Your task to perform on an android device: Open calendar and show me the fourth week of next month Image 0: 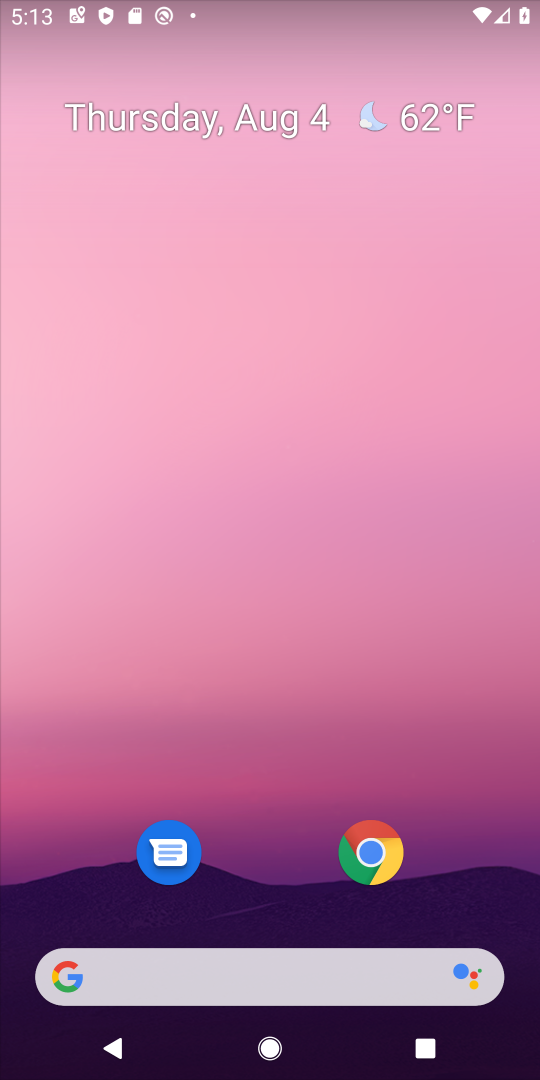
Step 0: drag from (264, 932) to (335, 147)
Your task to perform on an android device: Open calendar and show me the fourth week of next month Image 1: 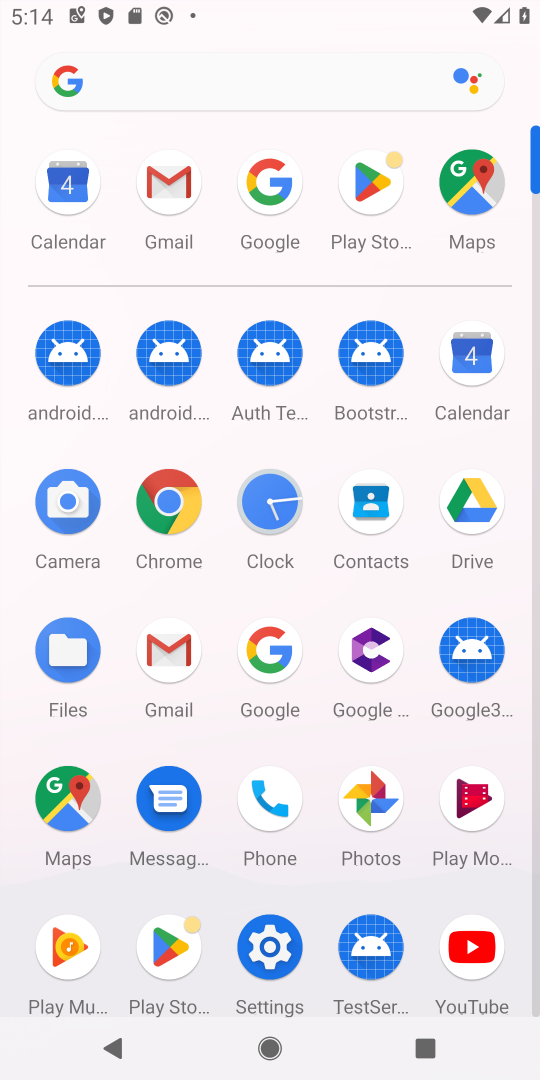
Step 1: click (469, 361)
Your task to perform on an android device: Open calendar and show me the fourth week of next month Image 2: 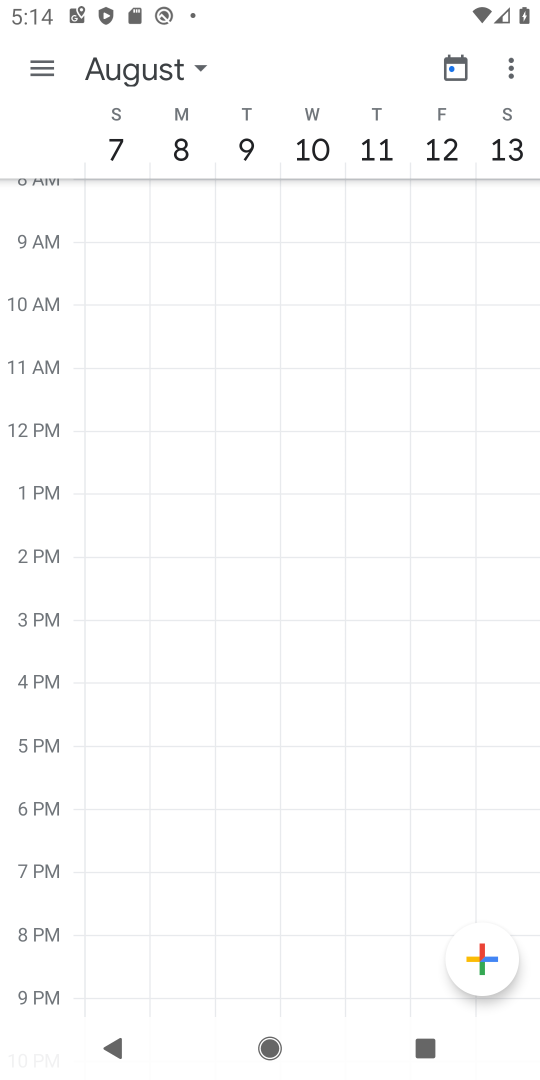
Step 2: click (203, 67)
Your task to perform on an android device: Open calendar and show me the fourth week of next month Image 3: 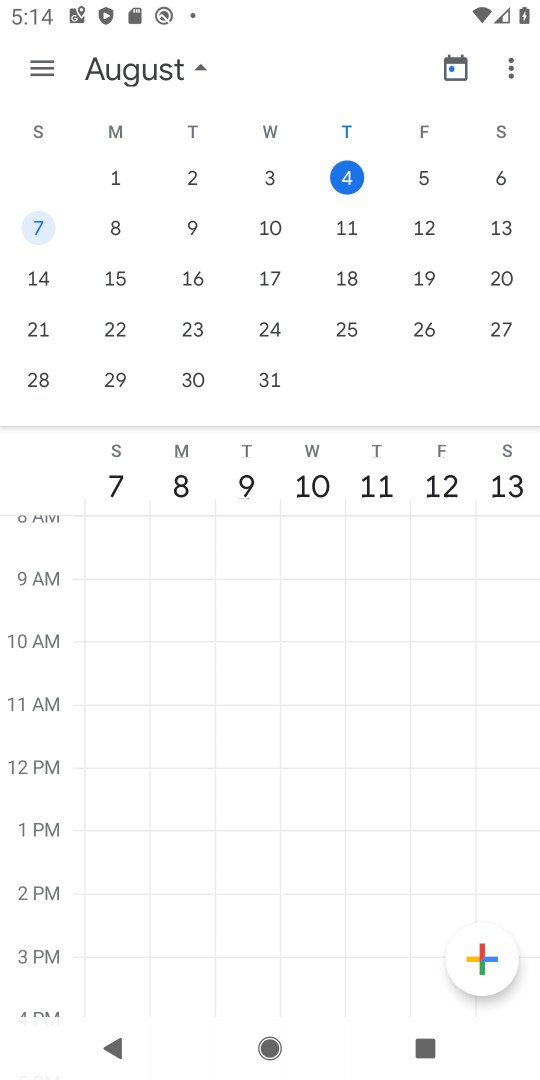
Step 3: drag from (463, 288) to (205, 266)
Your task to perform on an android device: Open calendar and show me the fourth week of next month Image 4: 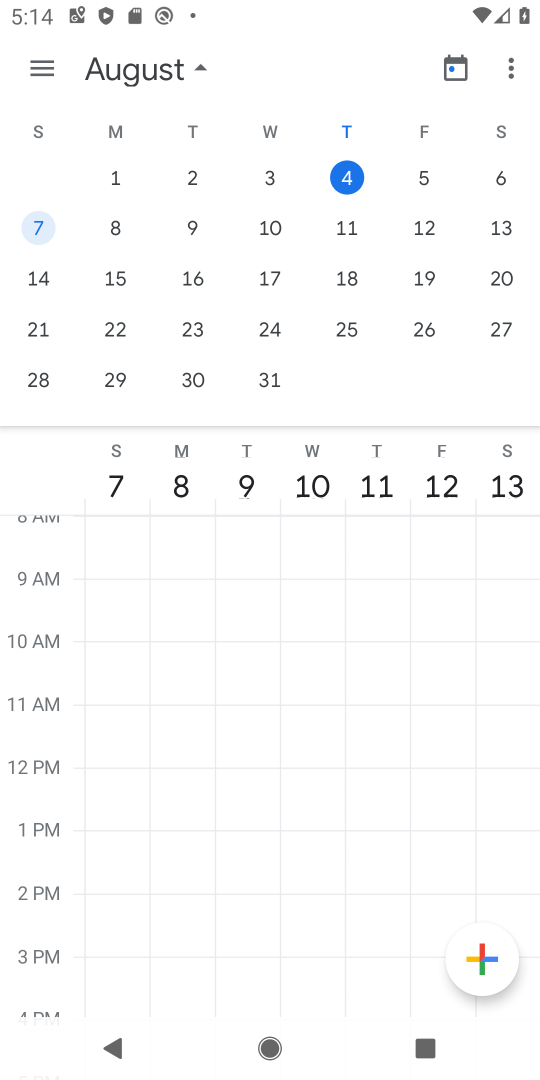
Step 4: drag from (414, 296) to (118, 300)
Your task to perform on an android device: Open calendar and show me the fourth week of next month Image 5: 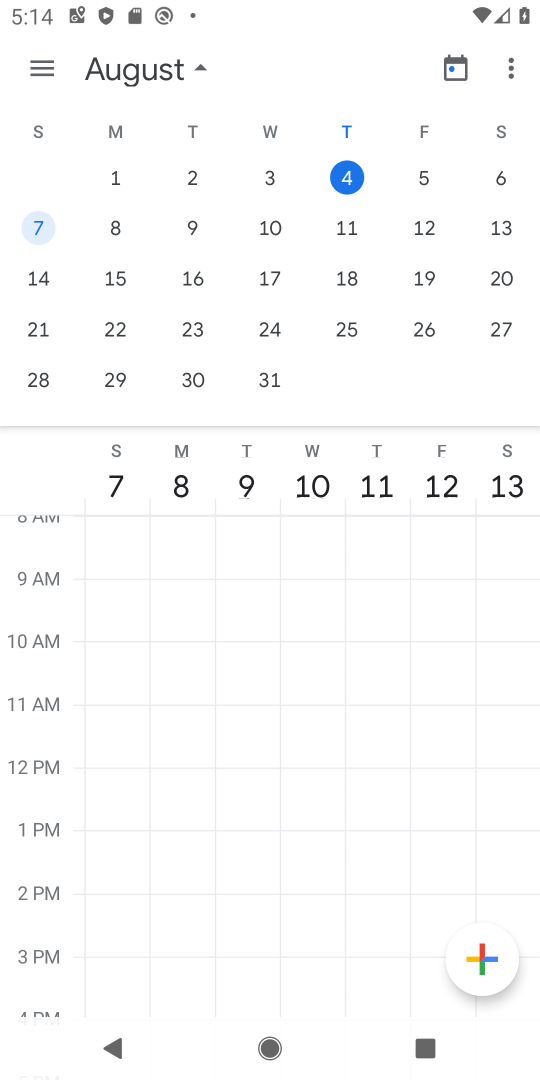
Step 5: drag from (493, 284) to (152, 280)
Your task to perform on an android device: Open calendar and show me the fourth week of next month Image 6: 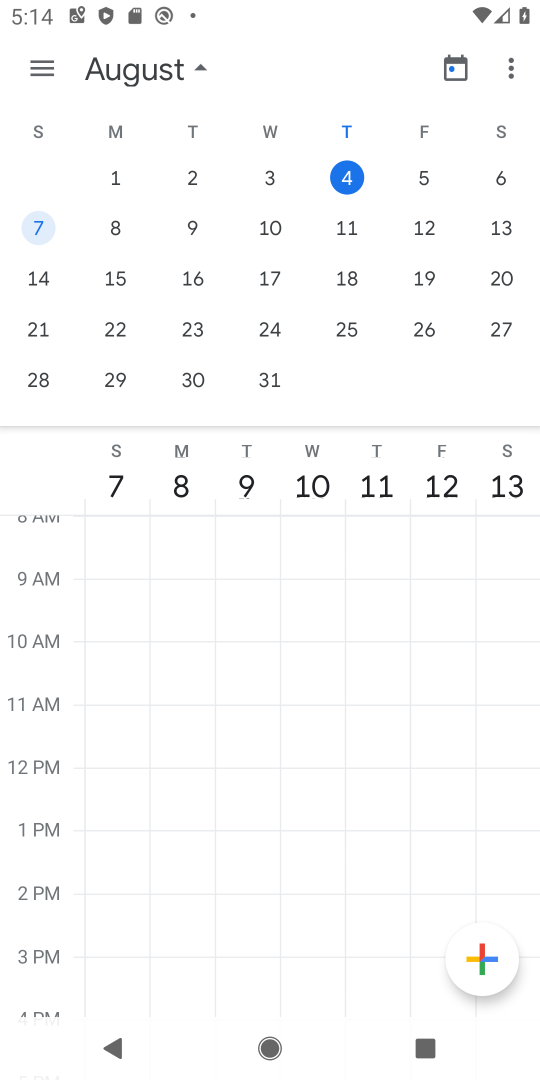
Step 6: drag from (435, 234) to (105, 231)
Your task to perform on an android device: Open calendar and show me the fourth week of next month Image 7: 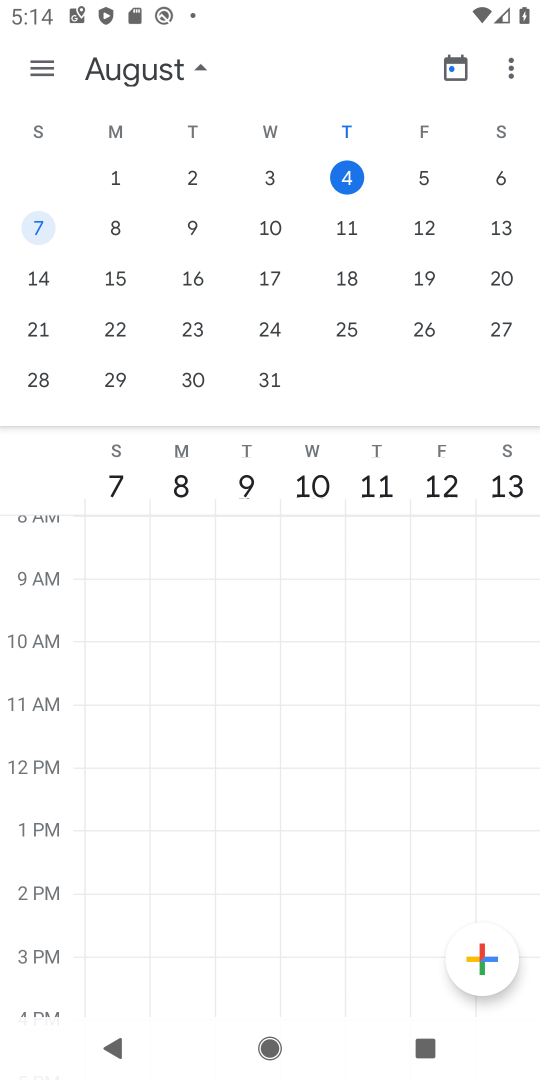
Step 7: drag from (505, 230) to (2, 228)
Your task to perform on an android device: Open calendar and show me the fourth week of next month Image 8: 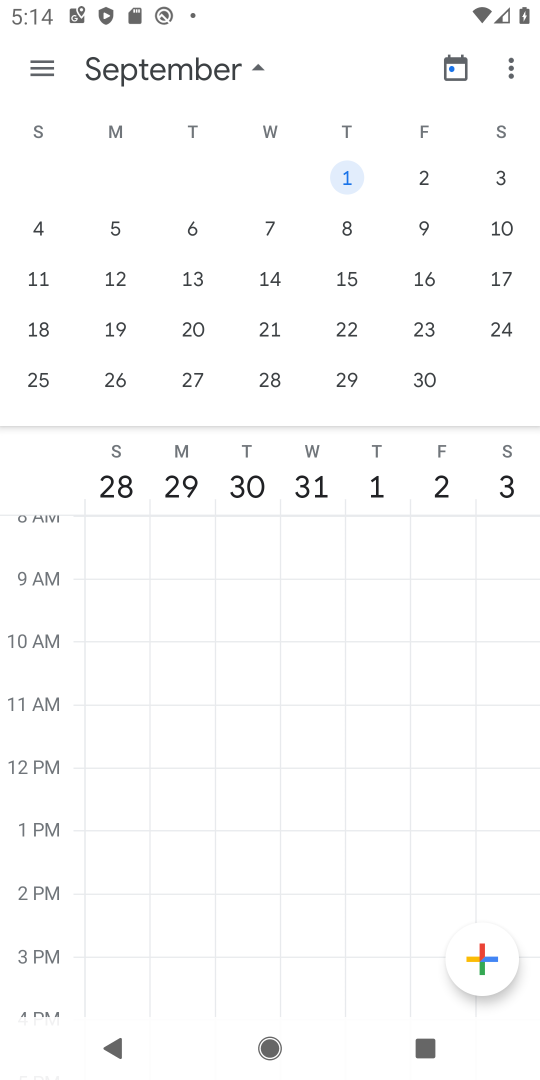
Step 8: click (112, 369)
Your task to perform on an android device: Open calendar and show me the fourth week of next month Image 9: 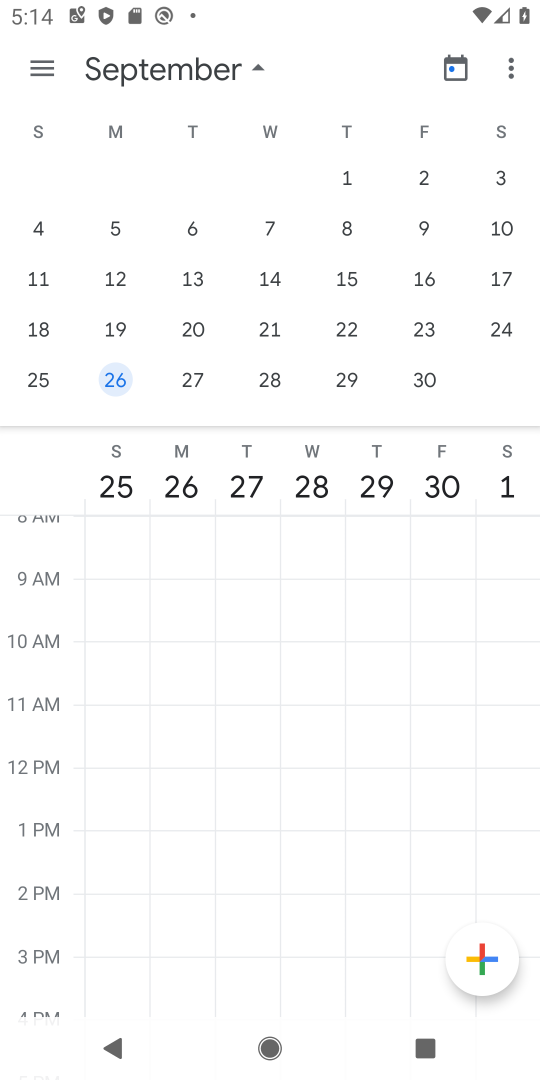
Step 9: click (50, 70)
Your task to perform on an android device: Open calendar and show me the fourth week of next month Image 10: 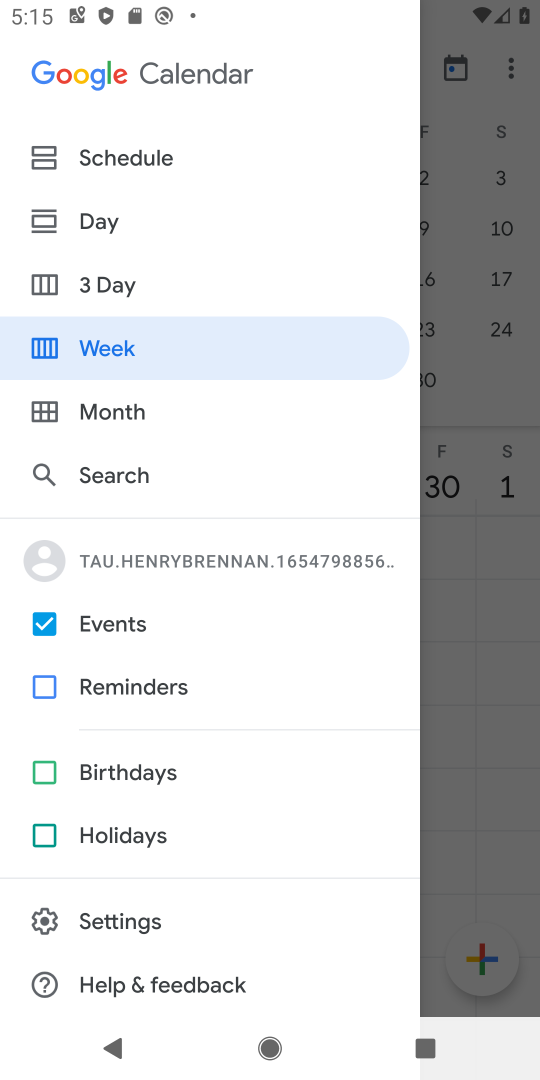
Step 10: click (116, 339)
Your task to perform on an android device: Open calendar and show me the fourth week of next month Image 11: 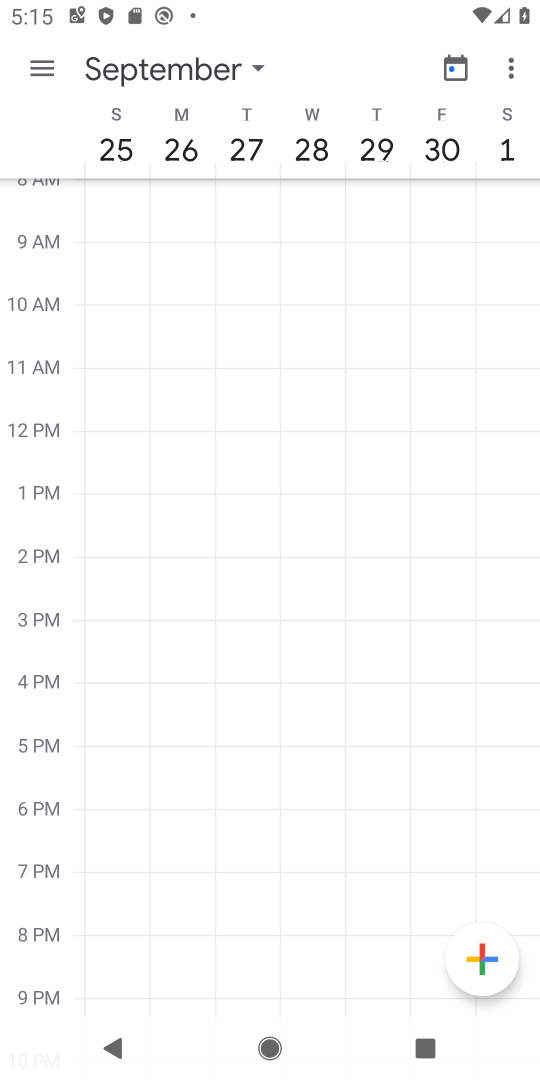
Step 11: task complete